Your task to perform on an android device: Go to internet settings Image 0: 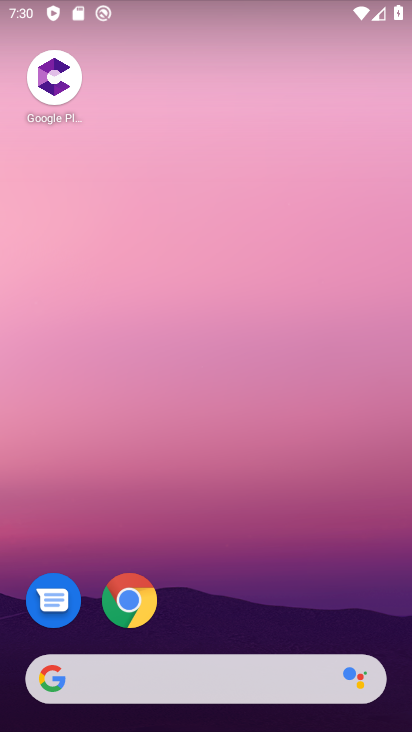
Step 0: drag from (265, 589) to (257, 30)
Your task to perform on an android device: Go to internet settings Image 1: 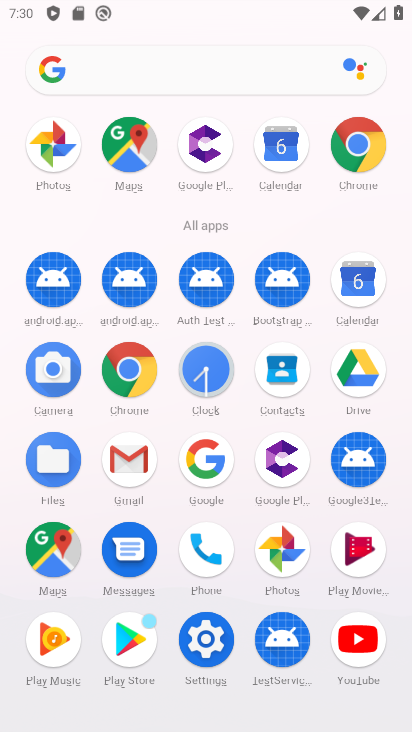
Step 1: click (207, 639)
Your task to perform on an android device: Go to internet settings Image 2: 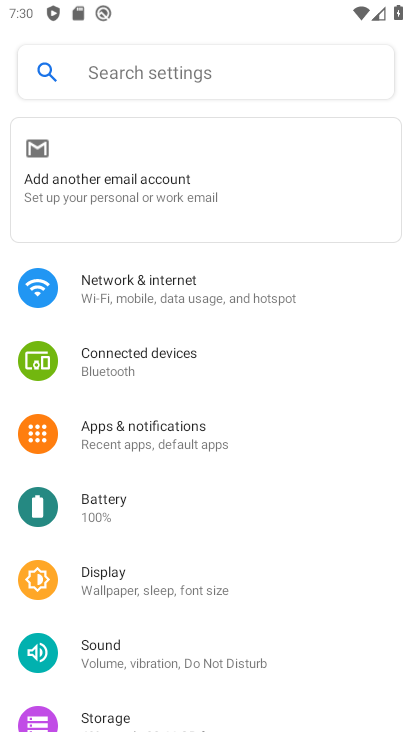
Step 2: click (212, 297)
Your task to perform on an android device: Go to internet settings Image 3: 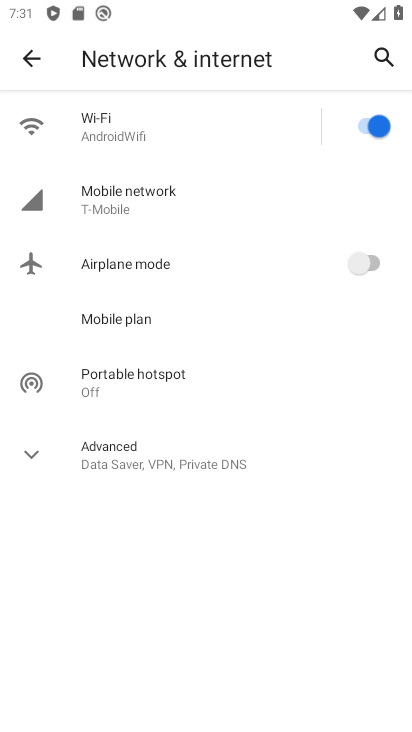
Step 3: click (101, 143)
Your task to perform on an android device: Go to internet settings Image 4: 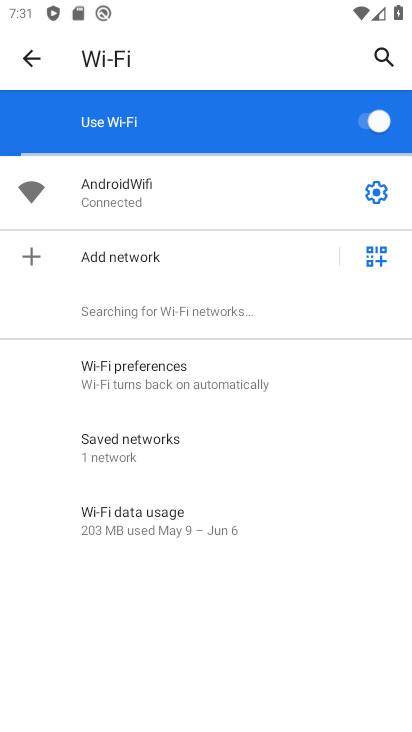
Step 4: task complete